Your task to perform on an android device: turn off smart reply in the gmail app Image 0: 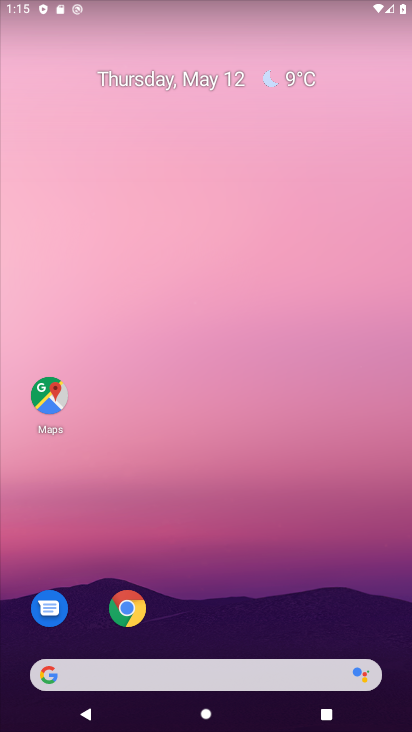
Step 0: drag from (235, 590) to (185, 207)
Your task to perform on an android device: turn off smart reply in the gmail app Image 1: 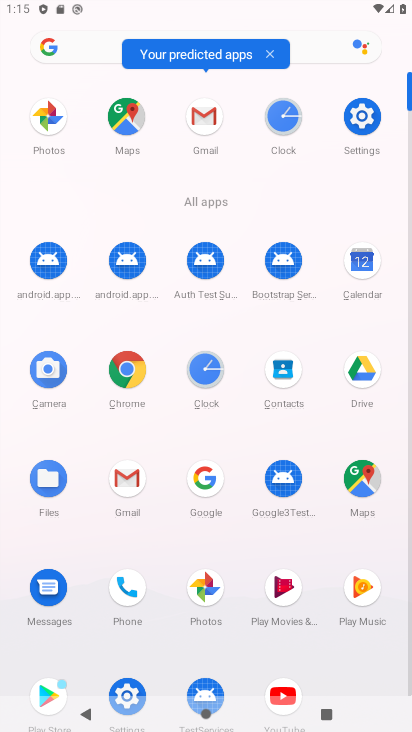
Step 1: click (135, 486)
Your task to perform on an android device: turn off smart reply in the gmail app Image 2: 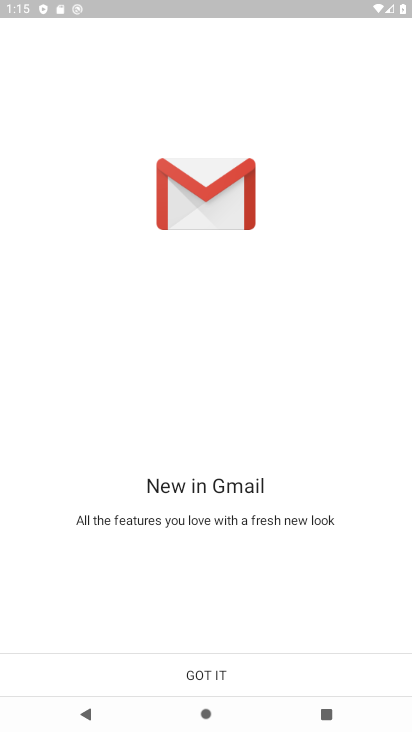
Step 2: click (203, 684)
Your task to perform on an android device: turn off smart reply in the gmail app Image 3: 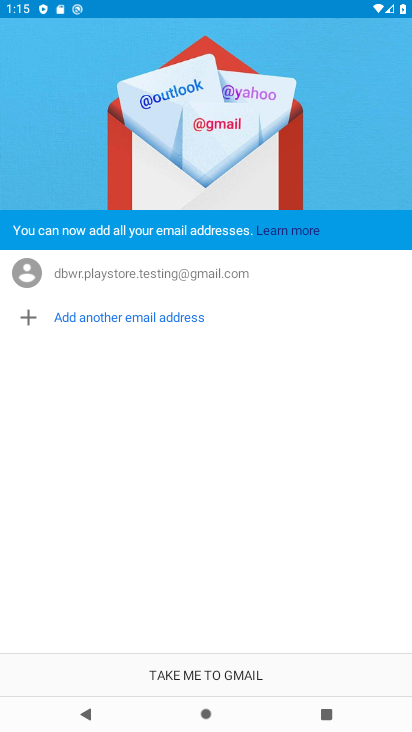
Step 3: click (203, 684)
Your task to perform on an android device: turn off smart reply in the gmail app Image 4: 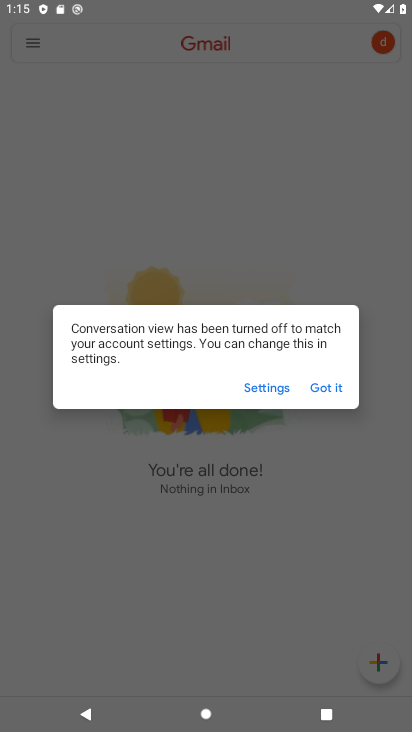
Step 4: click (328, 388)
Your task to perform on an android device: turn off smart reply in the gmail app Image 5: 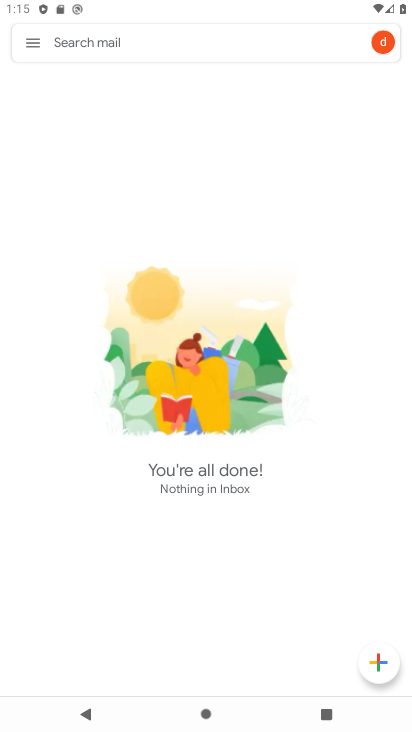
Step 5: click (30, 45)
Your task to perform on an android device: turn off smart reply in the gmail app Image 6: 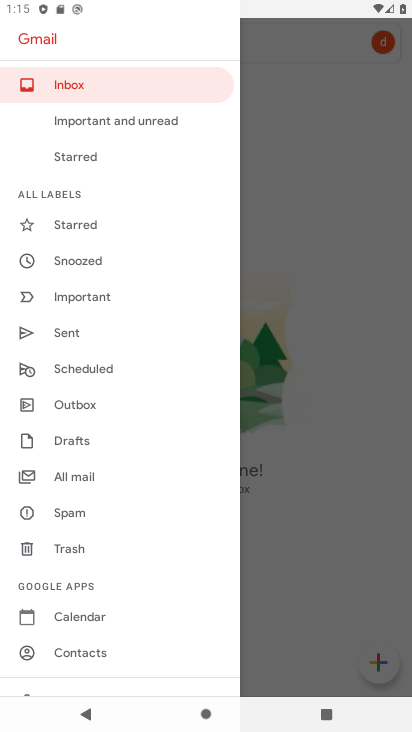
Step 6: drag from (118, 636) to (191, 318)
Your task to perform on an android device: turn off smart reply in the gmail app Image 7: 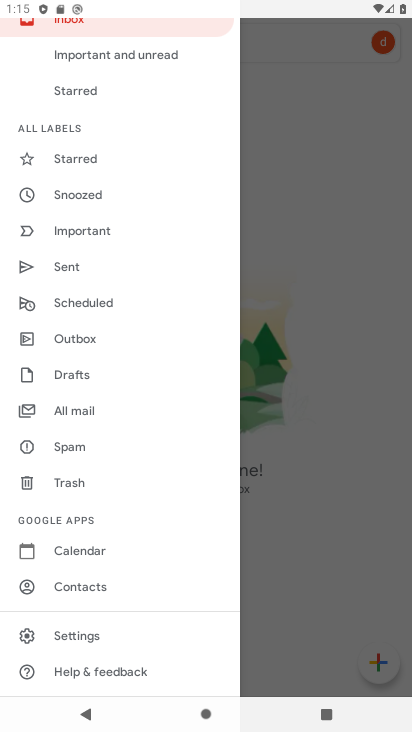
Step 7: click (83, 636)
Your task to perform on an android device: turn off smart reply in the gmail app Image 8: 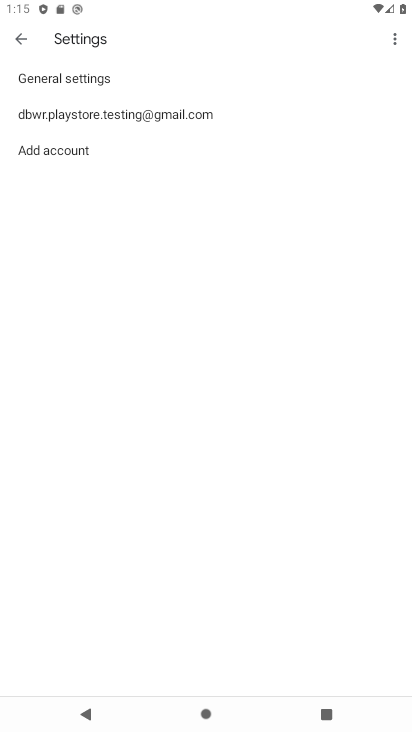
Step 8: click (67, 117)
Your task to perform on an android device: turn off smart reply in the gmail app Image 9: 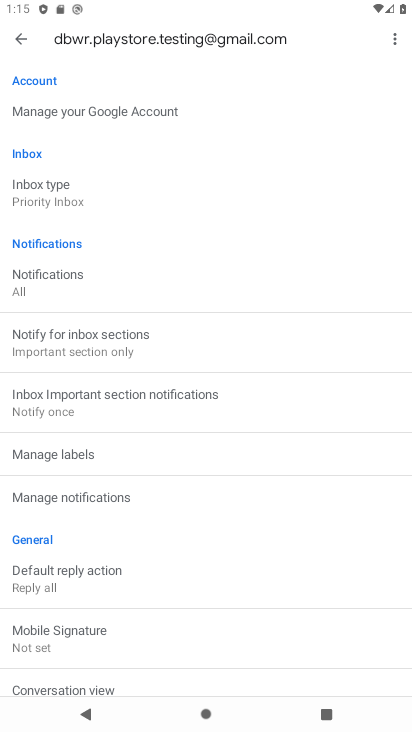
Step 9: drag from (124, 628) to (163, 170)
Your task to perform on an android device: turn off smart reply in the gmail app Image 10: 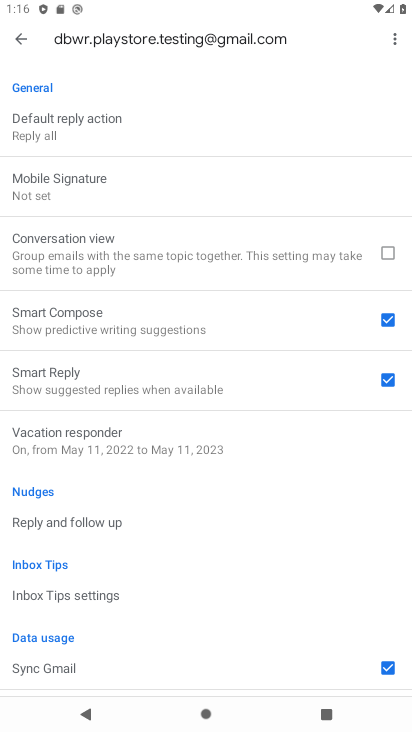
Step 10: click (388, 377)
Your task to perform on an android device: turn off smart reply in the gmail app Image 11: 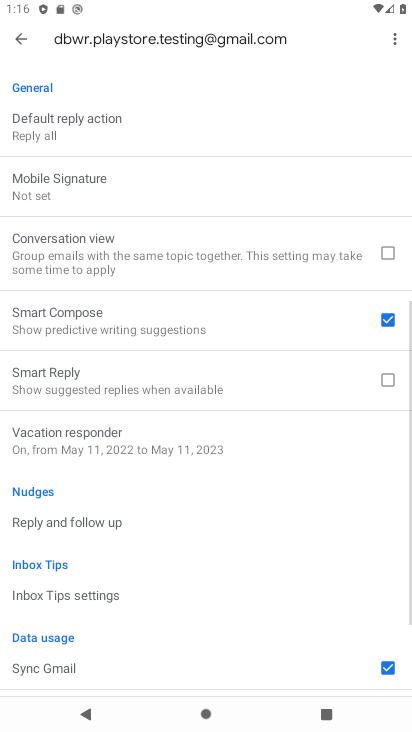
Step 11: task complete